Your task to perform on an android device: Open the calendar and show me this week's events? Image 0: 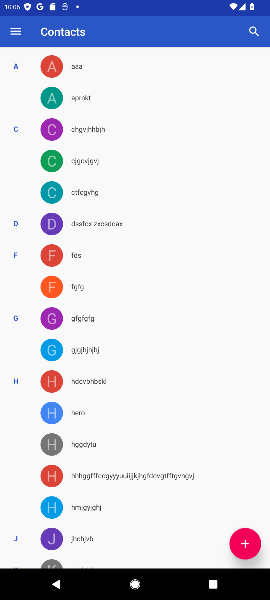
Step 0: press home button
Your task to perform on an android device: Open the calendar and show me this week's events? Image 1: 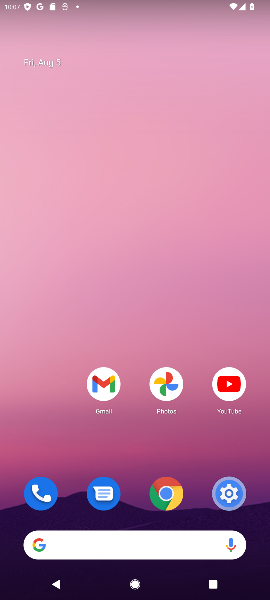
Step 1: drag from (133, 458) to (177, 6)
Your task to perform on an android device: Open the calendar and show me this week's events? Image 2: 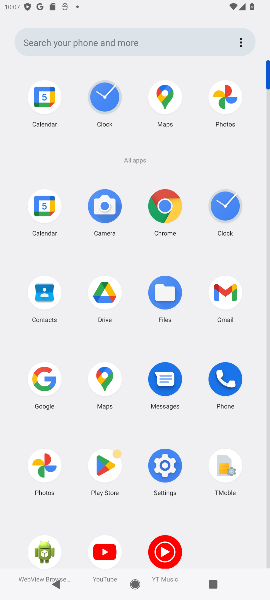
Step 2: click (46, 87)
Your task to perform on an android device: Open the calendar and show me this week's events? Image 3: 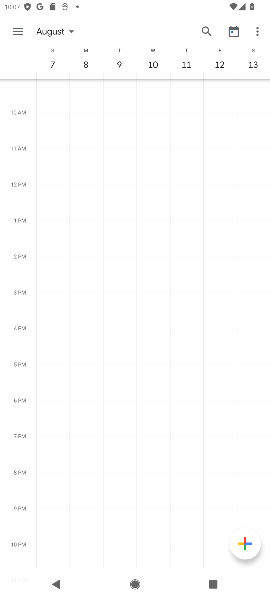
Step 3: click (12, 25)
Your task to perform on an android device: Open the calendar and show me this week's events? Image 4: 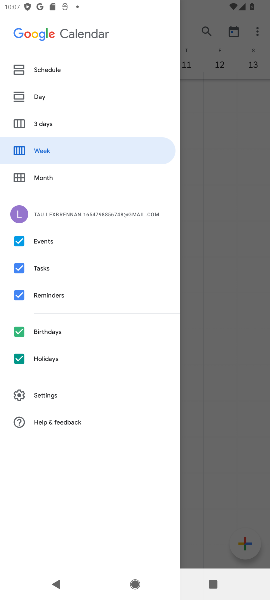
Step 4: click (13, 294)
Your task to perform on an android device: Open the calendar and show me this week's events? Image 5: 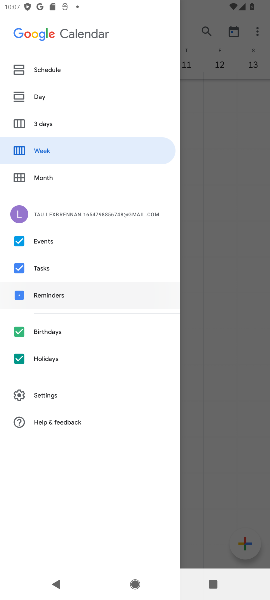
Step 5: click (17, 262)
Your task to perform on an android device: Open the calendar and show me this week's events? Image 6: 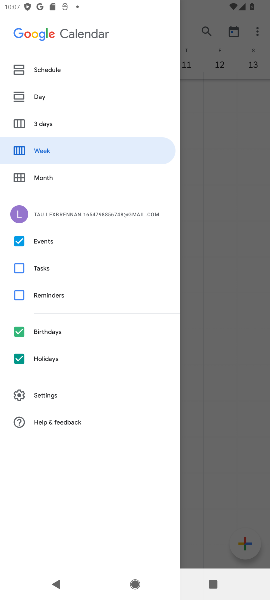
Step 6: click (14, 327)
Your task to perform on an android device: Open the calendar and show me this week's events? Image 7: 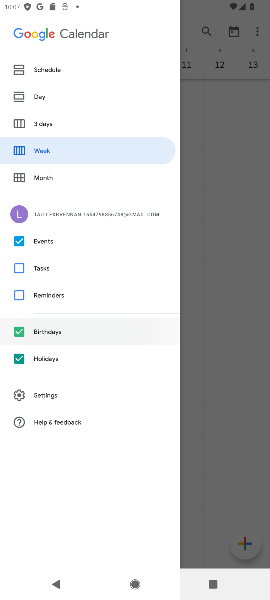
Step 7: click (18, 357)
Your task to perform on an android device: Open the calendar and show me this week's events? Image 8: 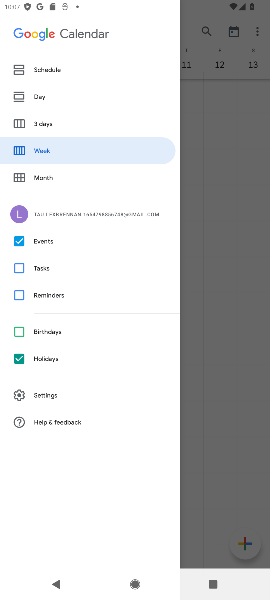
Step 8: click (44, 66)
Your task to perform on an android device: Open the calendar and show me this week's events? Image 9: 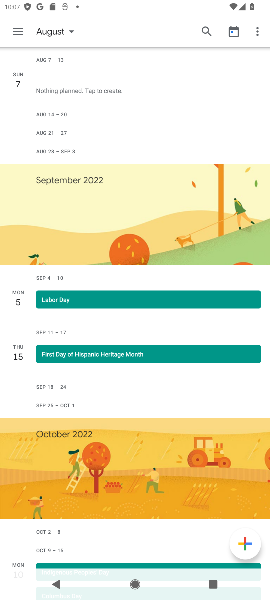
Step 9: task complete